Your task to perform on an android device: Search for Mexican restaurants on Maps Image 0: 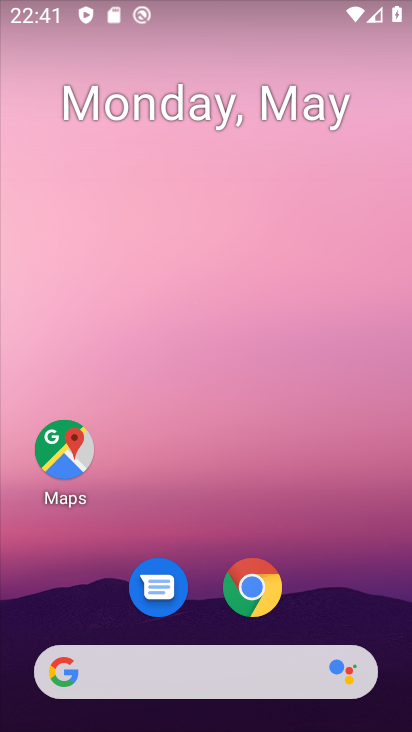
Step 0: click (54, 465)
Your task to perform on an android device: Search for Mexican restaurants on Maps Image 1: 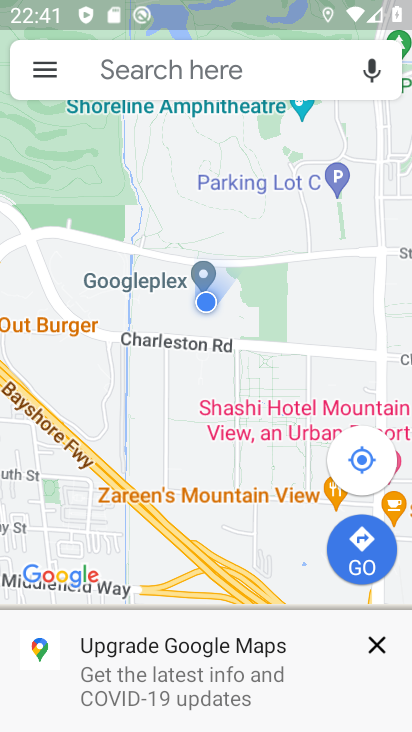
Step 1: click (150, 81)
Your task to perform on an android device: Search for Mexican restaurants on Maps Image 2: 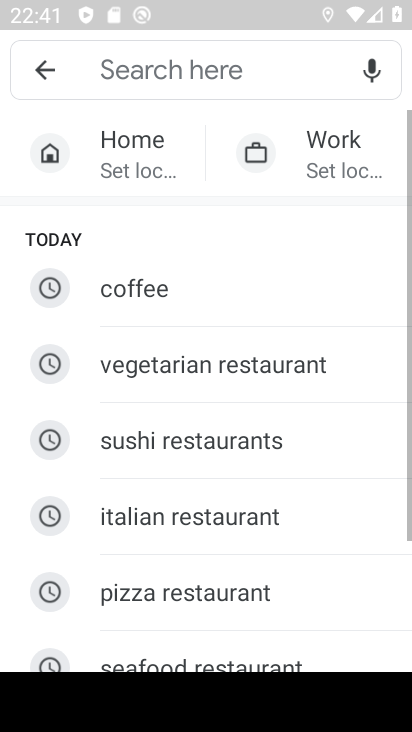
Step 2: drag from (180, 569) to (162, 245)
Your task to perform on an android device: Search for Mexican restaurants on Maps Image 3: 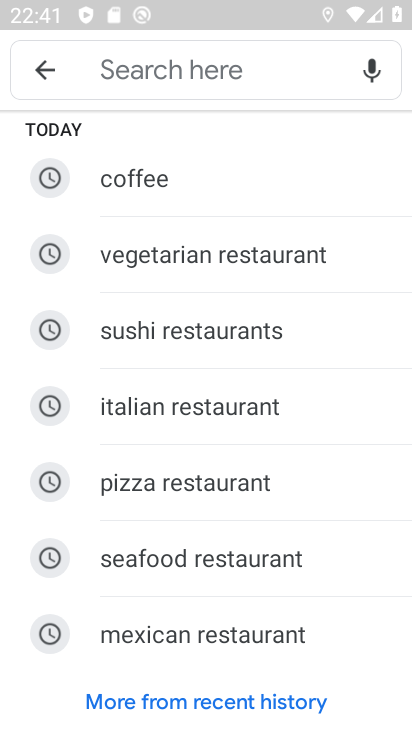
Step 3: click (121, 640)
Your task to perform on an android device: Search for Mexican restaurants on Maps Image 4: 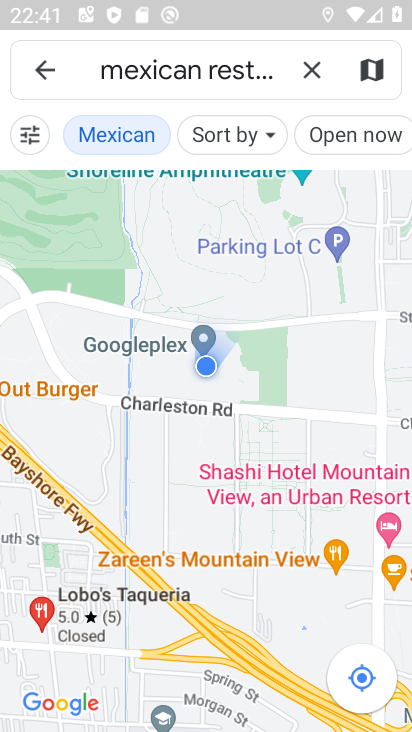
Step 4: task complete